Your task to perform on an android device: Go to Yahoo.com Image 0: 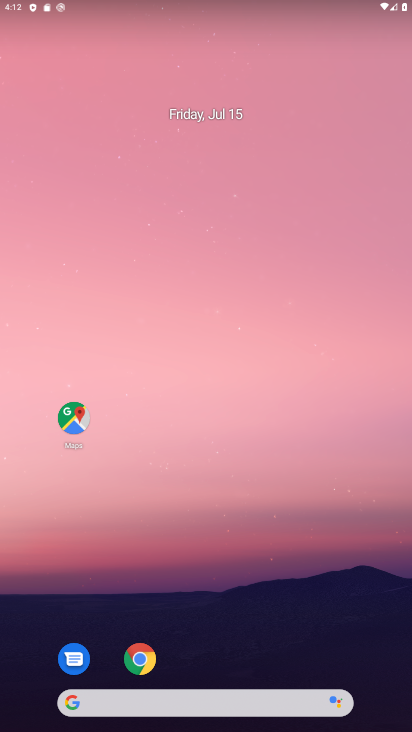
Step 0: drag from (268, 710) to (259, 40)
Your task to perform on an android device: Go to Yahoo.com Image 1: 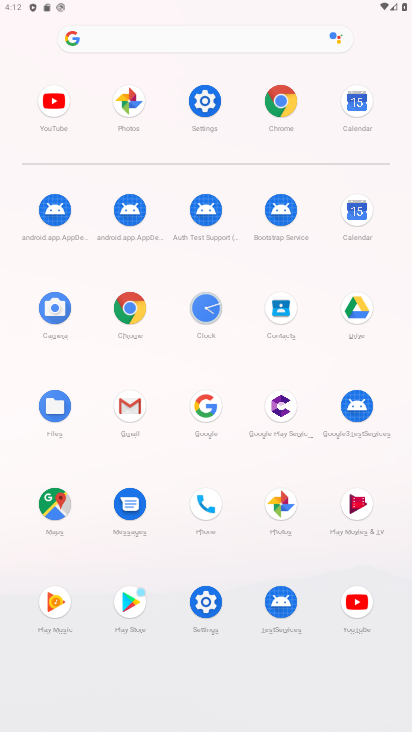
Step 1: click (132, 310)
Your task to perform on an android device: Go to Yahoo.com Image 2: 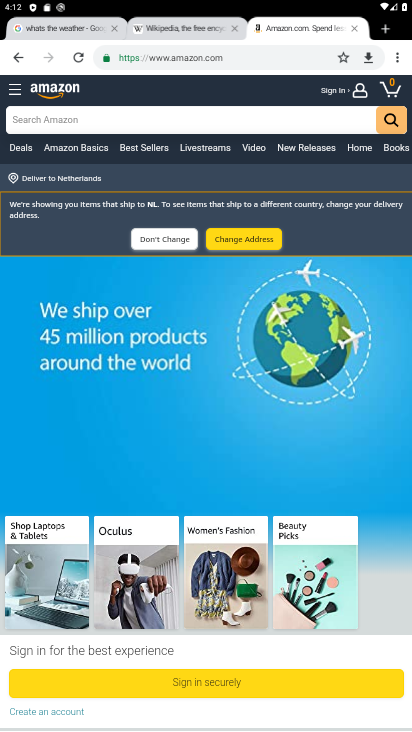
Step 2: click (272, 50)
Your task to perform on an android device: Go to Yahoo.com Image 3: 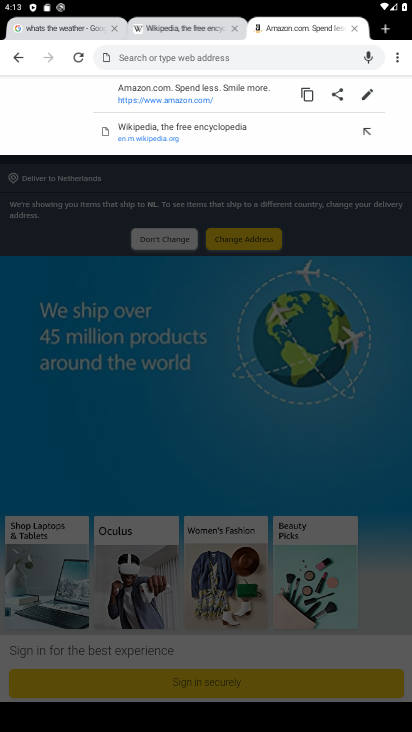
Step 3: type "yahoo.com"
Your task to perform on an android device: Go to Yahoo.com Image 4: 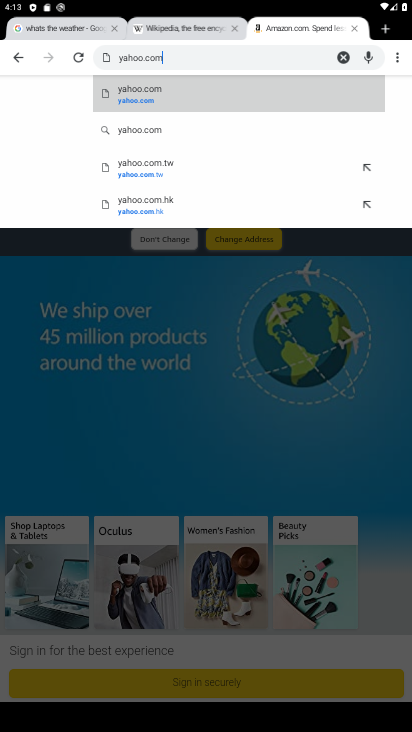
Step 4: click (226, 99)
Your task to perform on an android device: Go to Yahoo.com Image 5: 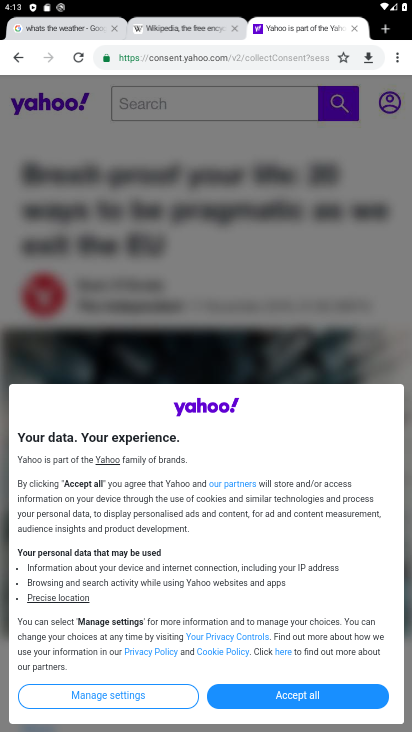
Step 5: task complete